Your task to perform on an android device: turn on airplane mode Image 0: 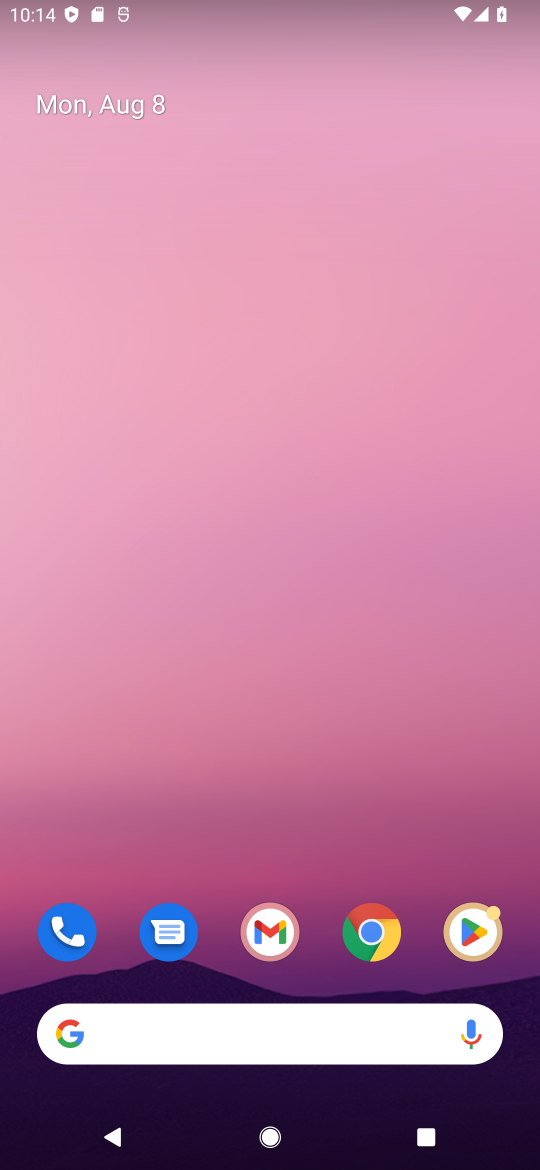
Step 0: drag from (257, 12) to (146, 964)
Your task to perform on an android device: turn on airplane mode Image 1: 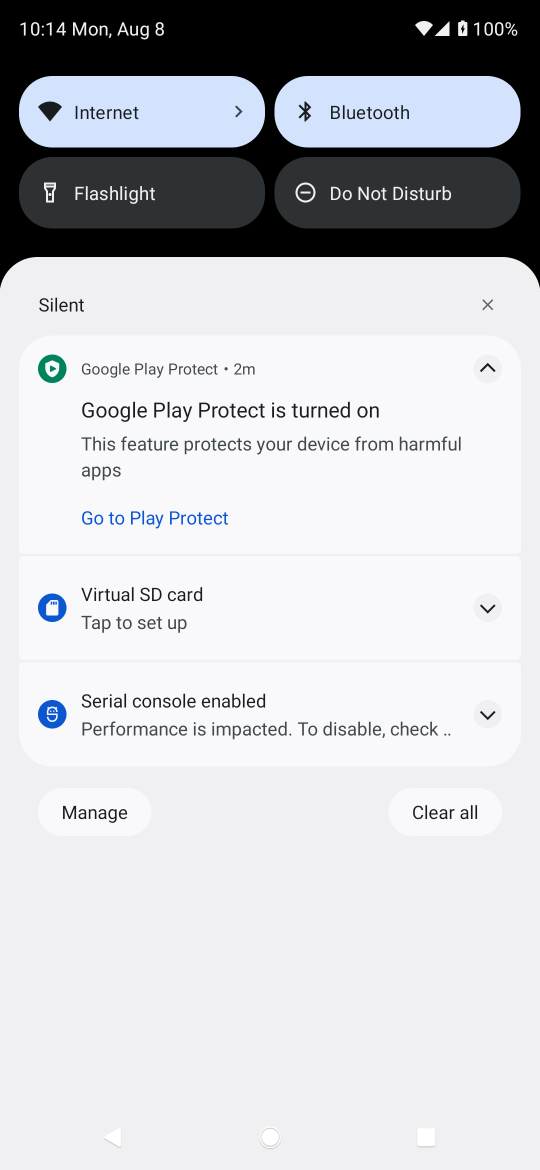
Step 1: drag from (246, 356) to (269, 870)
Your task to perform on an android device: turn on airplane mode Image 2: 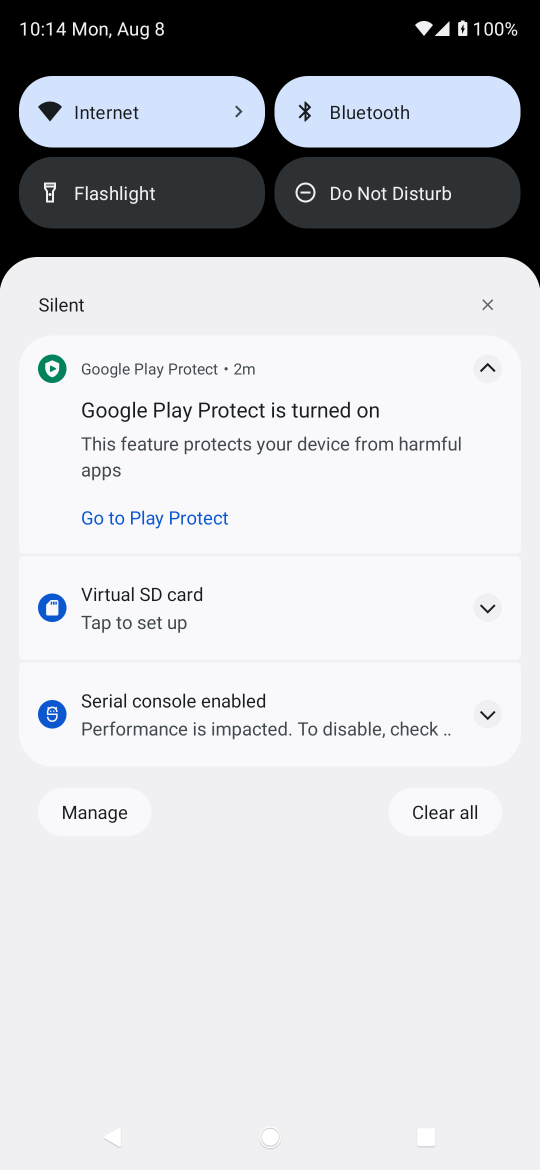
Step 2: drag from (246, 42) to (337, 1143)
Your task to perform on an android device: turn on airplane mode Image 3: 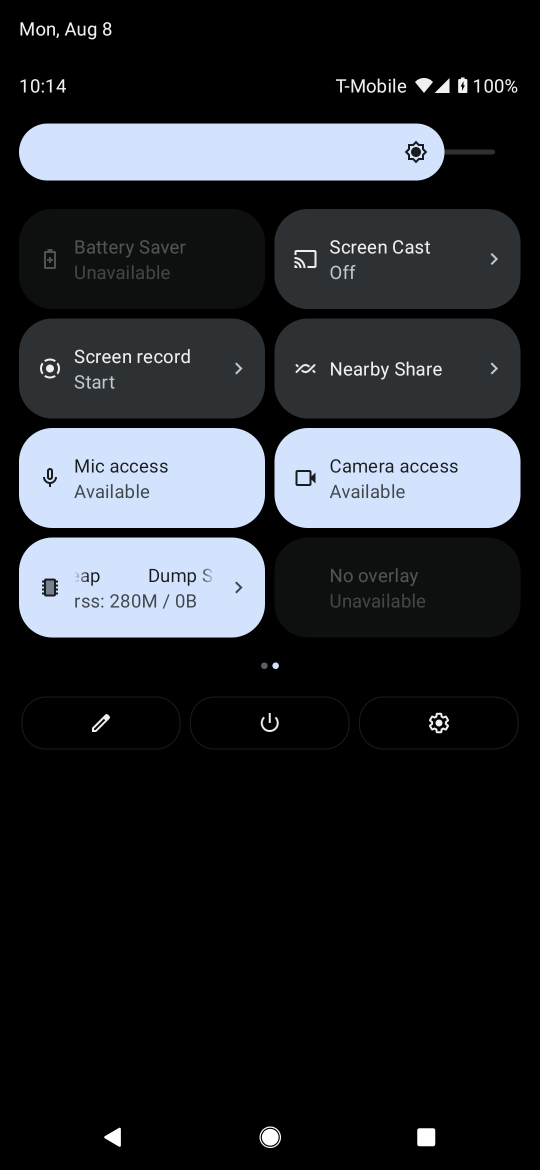
Step 3: drag from (130, 655) to (448, 620)
Your task to perform on an android device: turn on airplane mode Image 4: 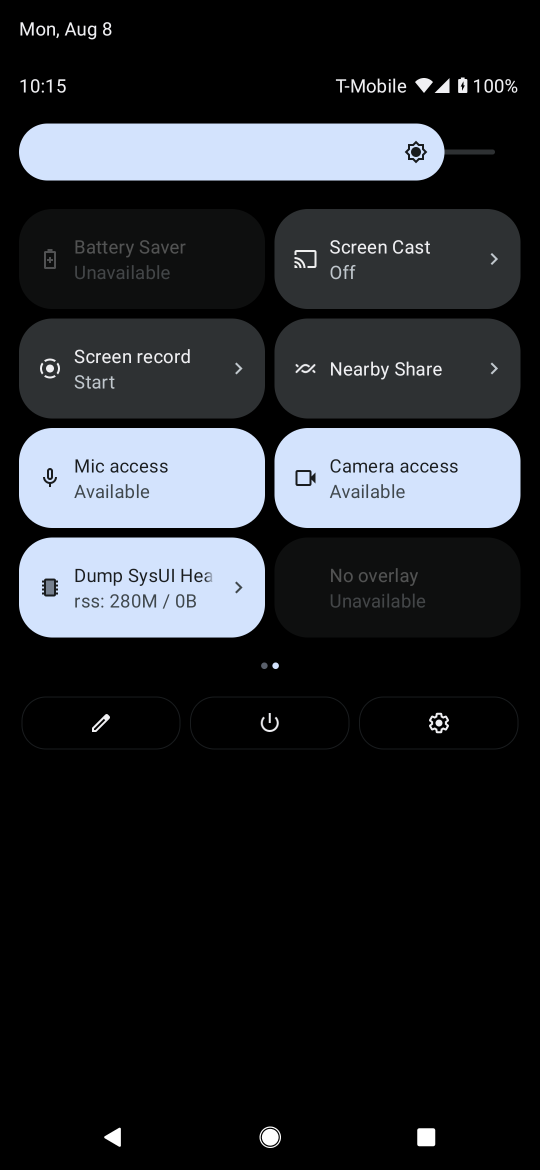
Step 4: drag from (118, 659) to (458, 654)
Your task to perform on an android device: turn on airplane mode Image 5: 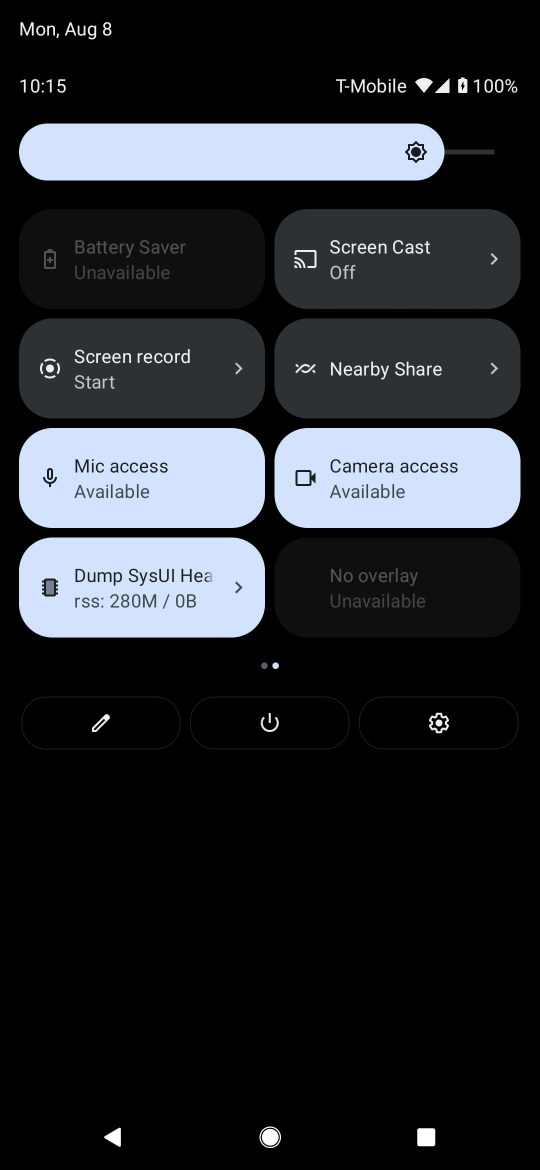
Step 5: drag from (21, 537) to (397, 587)
Your task to perform on an android device: turn on airplane mode Image 6: 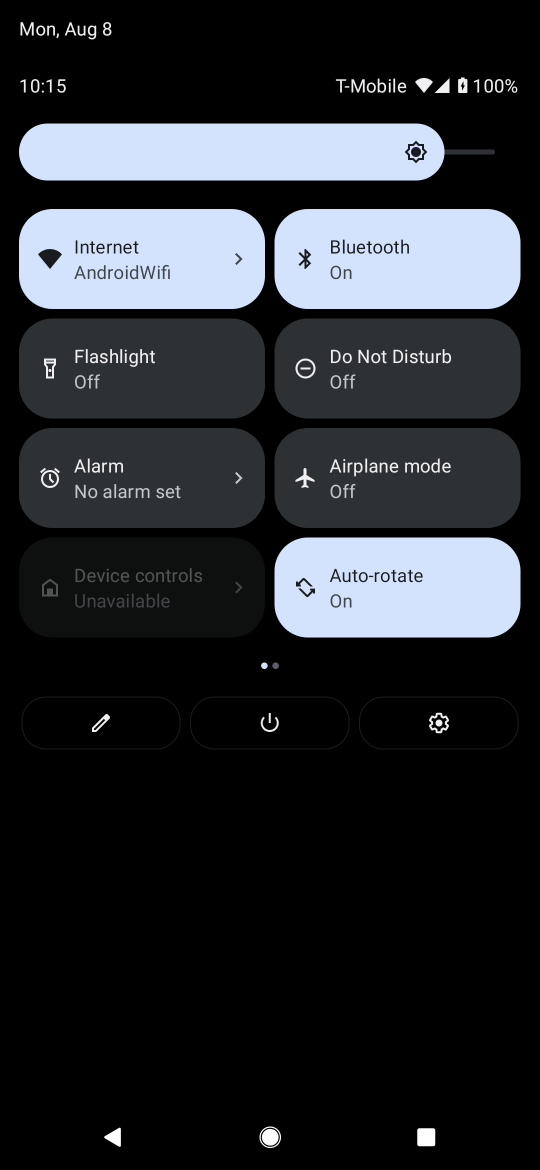
Step 6: click (322, 501)
Your task to perform on an android device: turn on airplane mode Image 7: 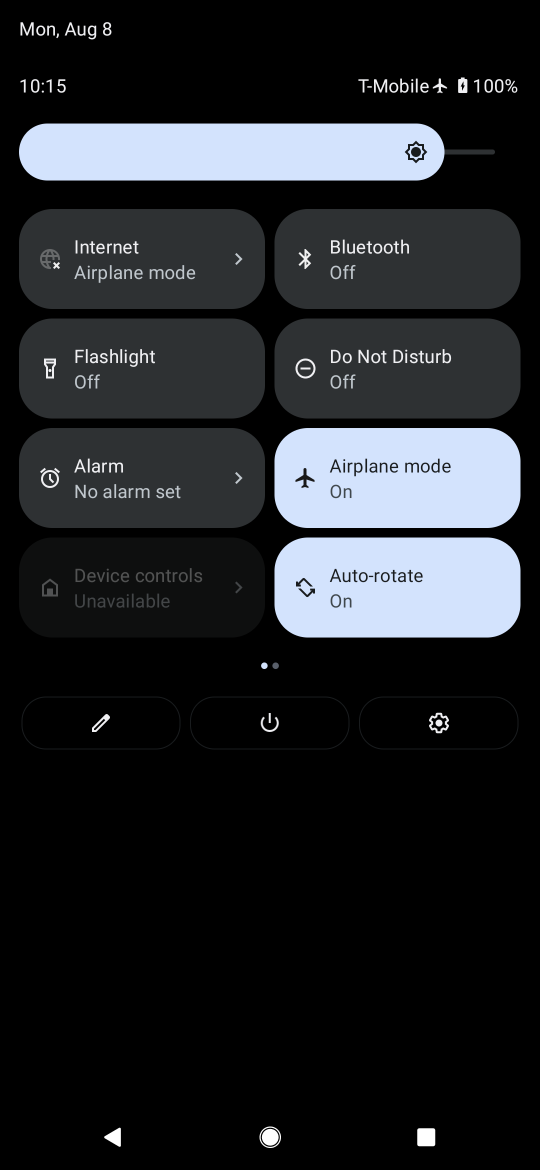
Step 7: task complete